Your task to perform on an android device: clear all cookies in the chrome app Image 0: 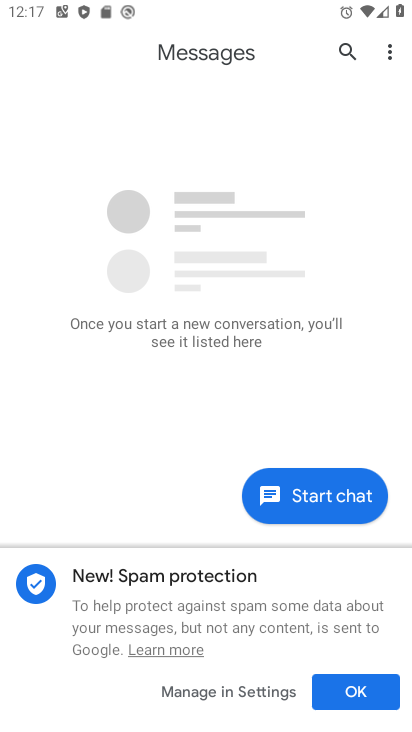
Step 0: press home button
Your task to perform on an android device: clear all cookies in the chrome app Image 1: 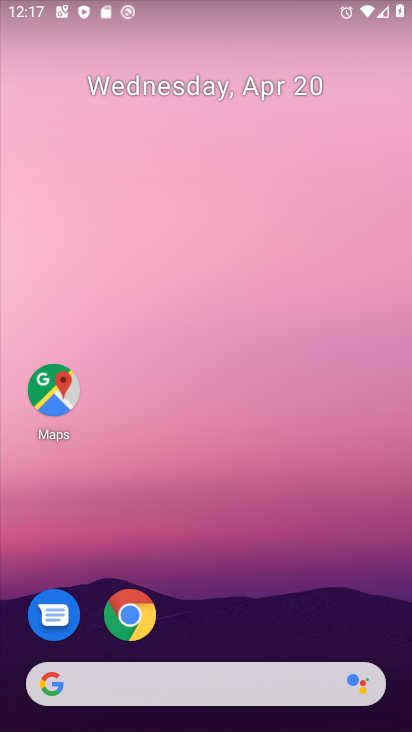
Step 1: click (141, 609)
Your task to perform on an android device: clear all cookies in the chrome app Image 2: 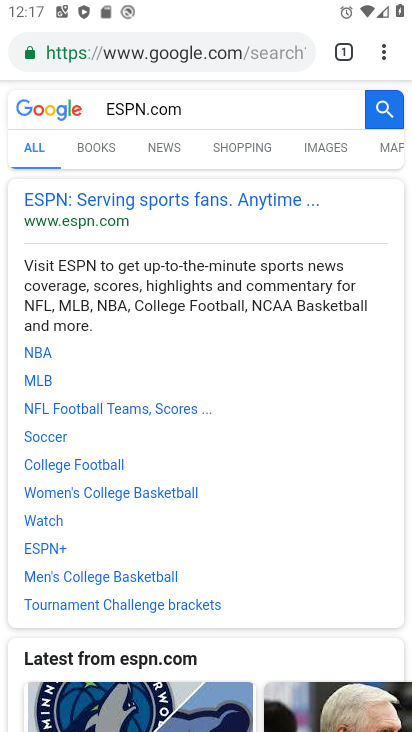
Step 2: click (383, 47)
Your task to perform on an android device: clear all cookies in the chrome app Image 3: 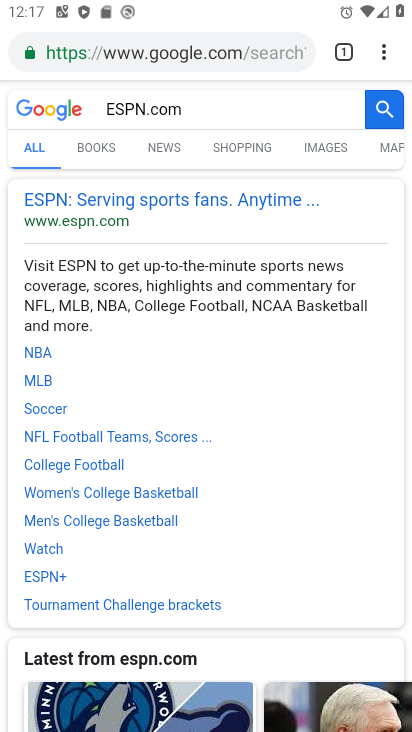
Step 3: click (383, 47)
Your task to perform on an android device: clear all cookies in the chrome app Image 4: 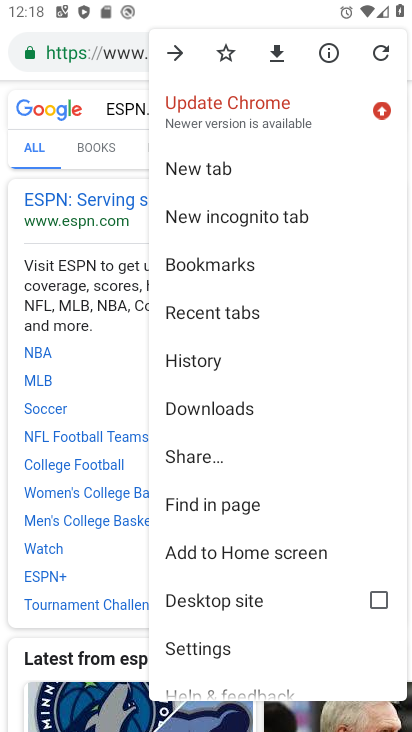
Step 4: click (199, 643)
Your task to perform on an android device: clear all cookies in the chrome app Image 5: 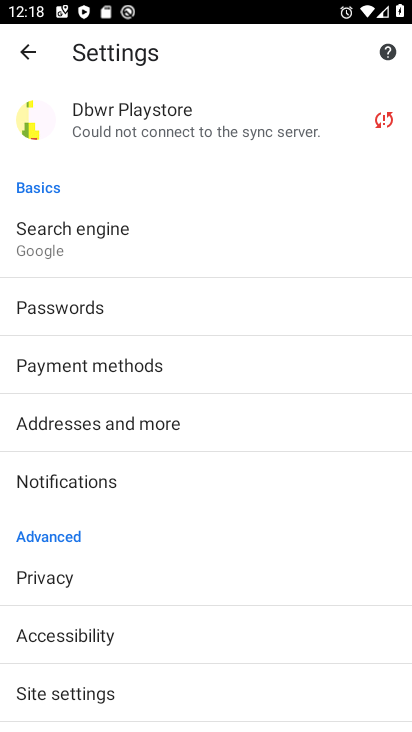
Step 5: press back button
Your task to perform on an android device: clear all cookies in the chrome app Image 6: 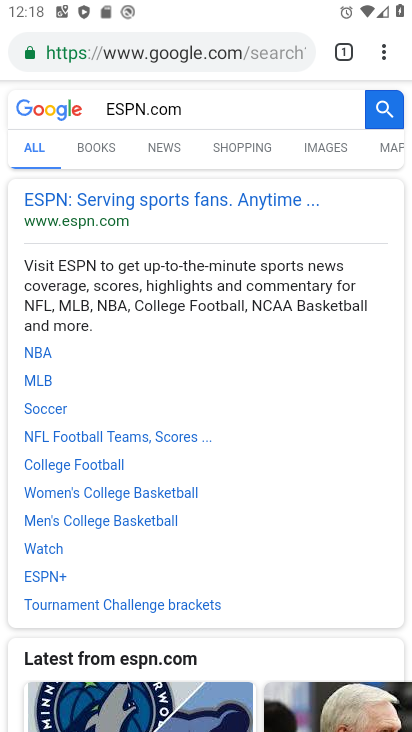
Step 6: click (384, 50)
Your task to perform on an android device: clear all cookies in the chrome app Image 7: 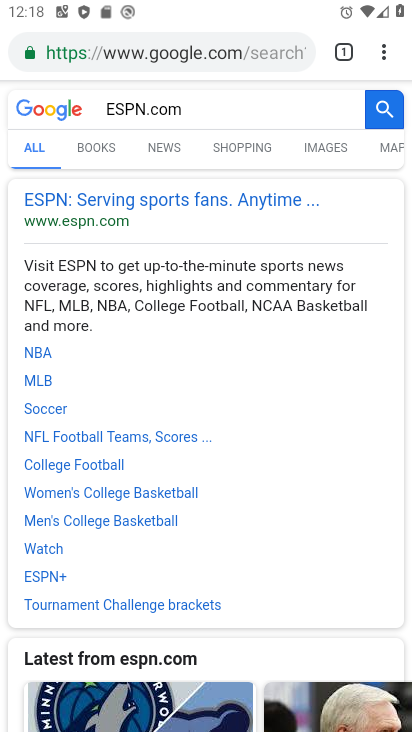
Step 7: click (377, 50)
Your task to perform on an android device: clear all cookies in the chrome app Image 8: 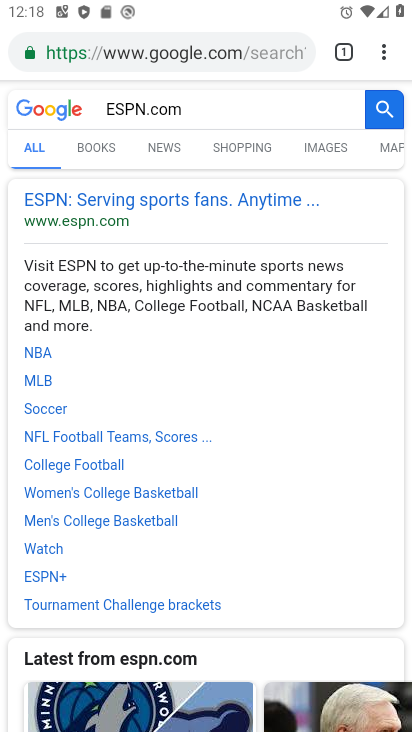
Step 8: click (378, 50)
Your task to perform on an android device: clear all cookies in the chrome app Image 9: 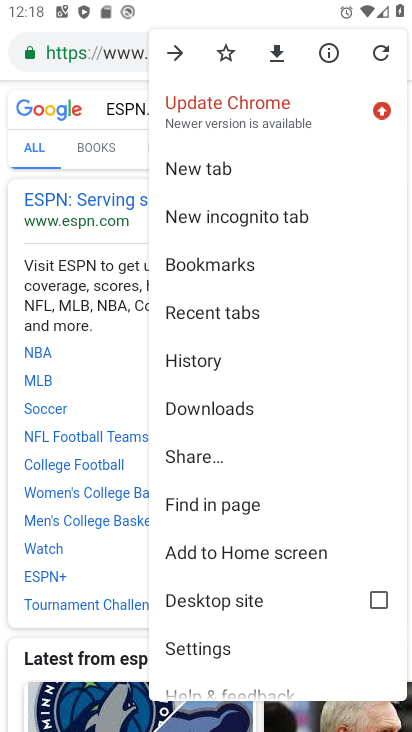
Step 9: click (189, 364)
Your task to perform on an android device: clear all cookies in the chrome app Image 10: 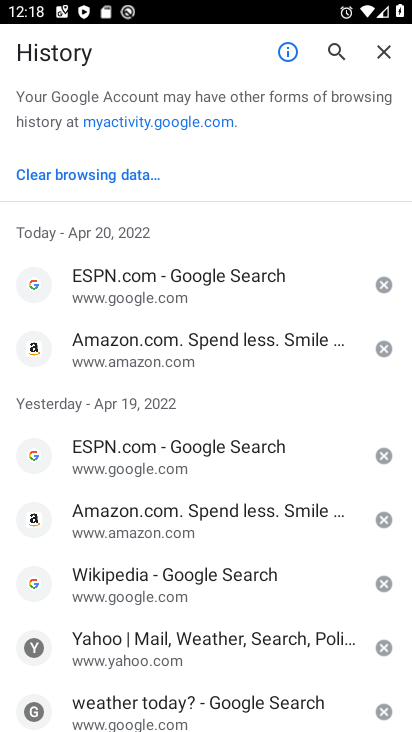
Step 10: click (107, 173)
Your task to perform on an android device: clear all cookies in the chrome app Image 11: 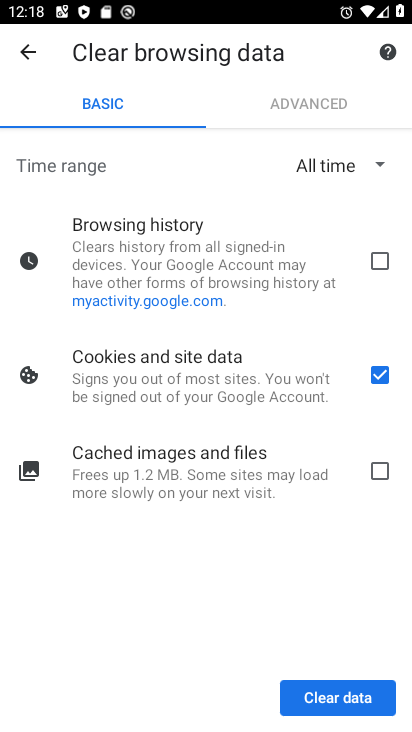
Step 11: click (348, 695)
Your task to perform on an android device: clear all cookies in the chrome app Image 12: 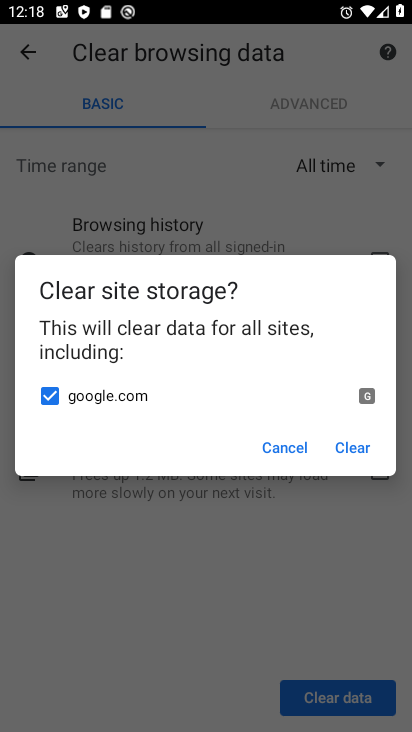
Step 12: click (353, 449)
Your task to perform on an android device: clear all cookies in the chrome app Image 13: 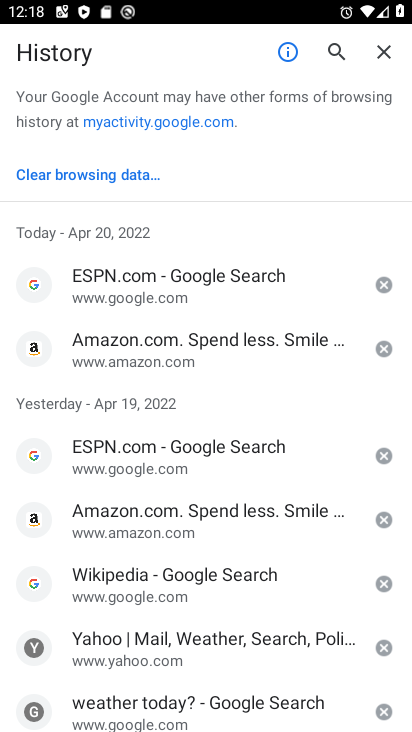
Step 13: task complete